Your task to perform on an android device: toggle data saver in the chrome app Image 0: 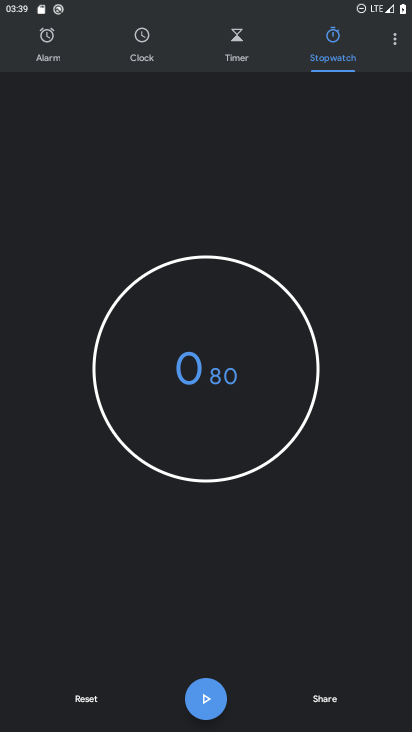
Step 0: press home button
Your task to perform on an android device: toggle data saver in the chrome app Image 1: 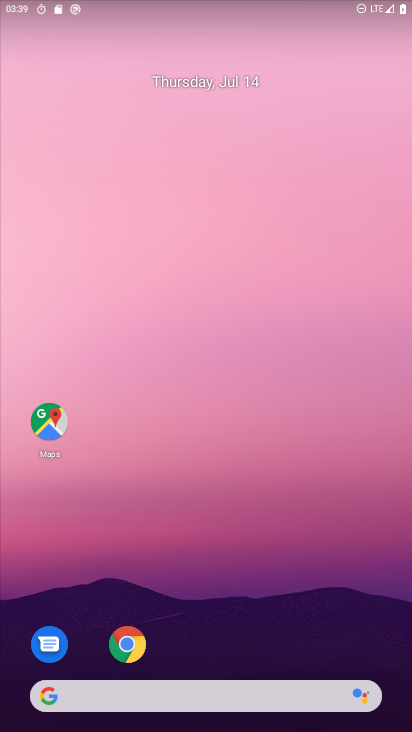
Step 1: drag from (244, 646) to (256, 50)
Your task to perform on an android device: toggle data saver in the chrome app Image 2: 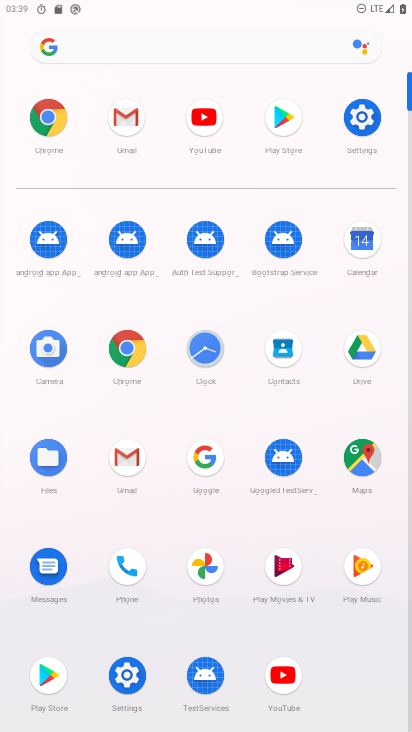
Step 2: click (55, 111)
Your task to perform on an android device: toggle data saver in the chrome app Image 3: 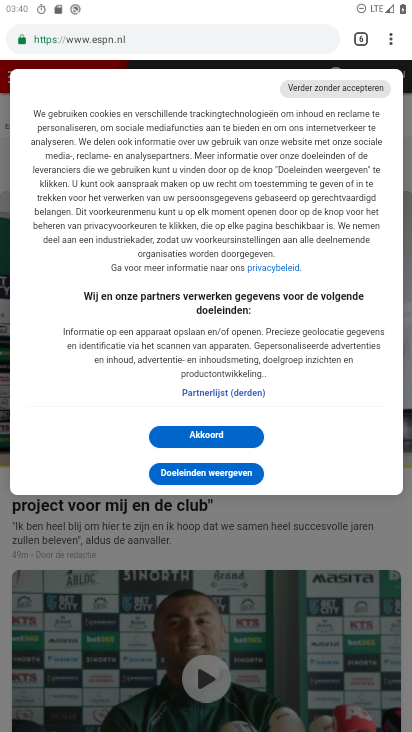
Step 3: drag from (395, 32) to (251, 473)
Your task to perform on an android device: toggle data saver in the chrome app Image 4: 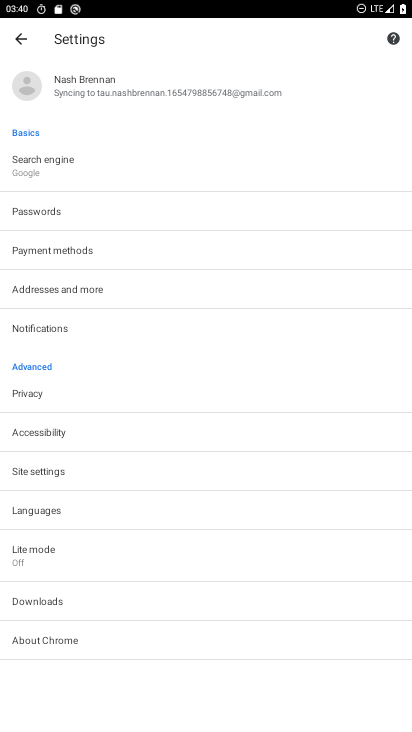
Step 4: click (50, 563)
Your task to perform on an android device: toggle data saver in the chrome app Image 5: 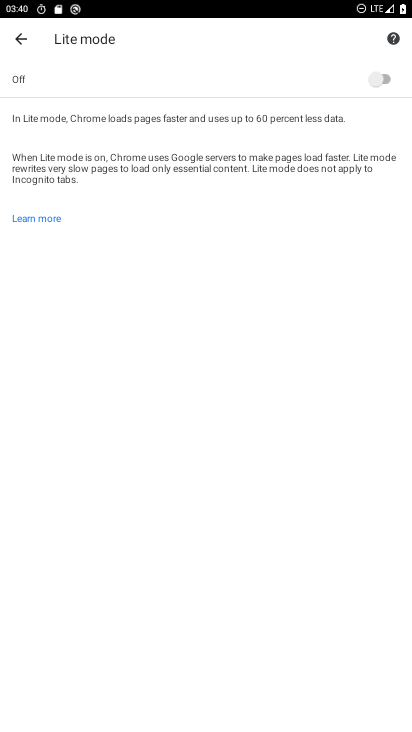
Step 5: click (383, 87)
Your task to perform on an android device: toggle data saver in the chrome app Image 6: 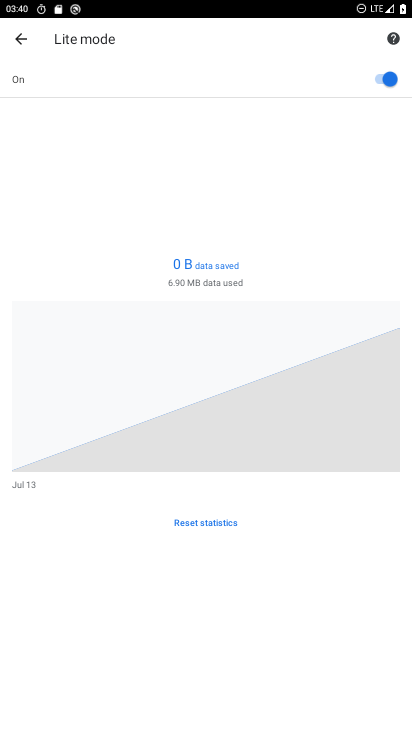
Step 6: task complete